Your task to perform on an android device: change the clock display to digital Image 0: 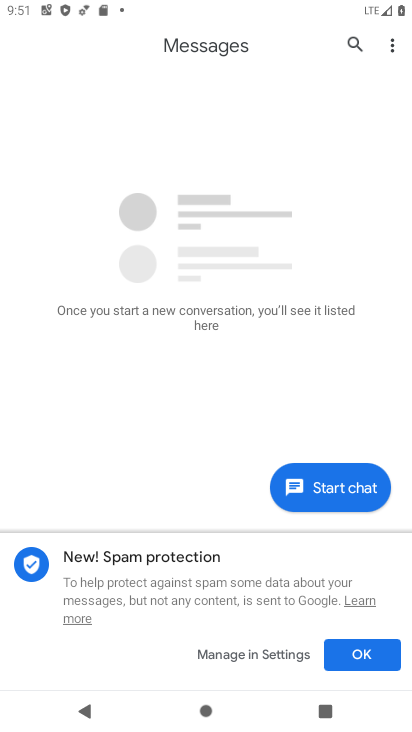
Step 0: press home button
Your task to perform on an android device: change the clock display to digital Image 1: 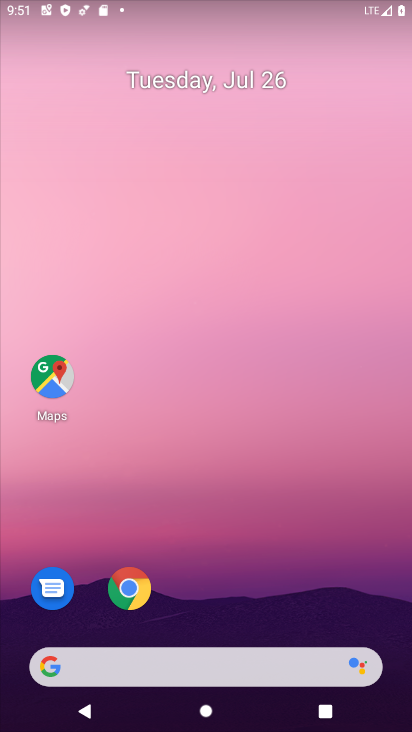
Step 1: drag from (166, 670) to (238, 82)
Your task to perform on an android device: change the clock display to digital Image 2: 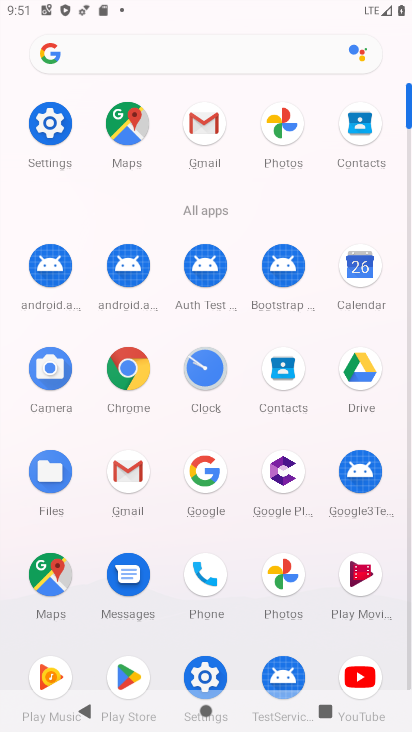
Step 2: click (205, 368)
Your task to perform on an android device: change the clock display to digital Image 3: 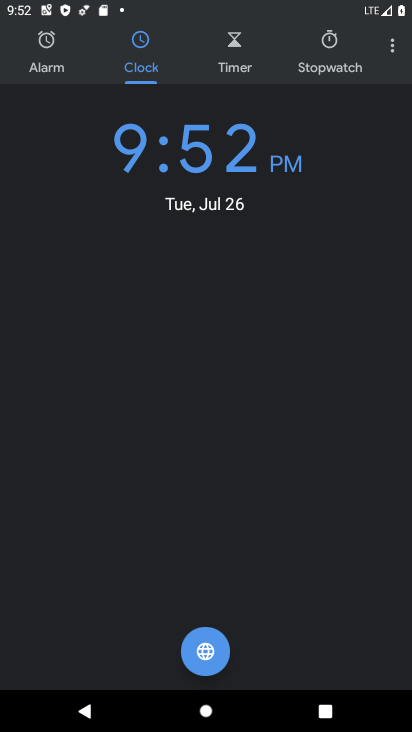
Step 3: click (392, 47)
Your task to perform on an android device: change the clock display to digital Image 4: 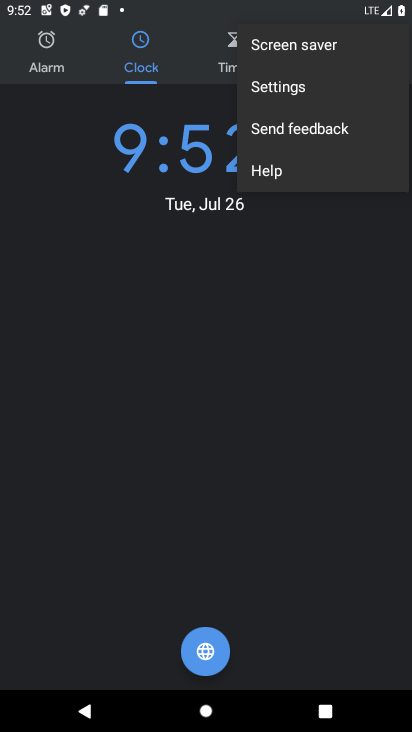
Step 4: click (290, 88)
Your task to perform on an android device: change the clock display to digital Image 5: 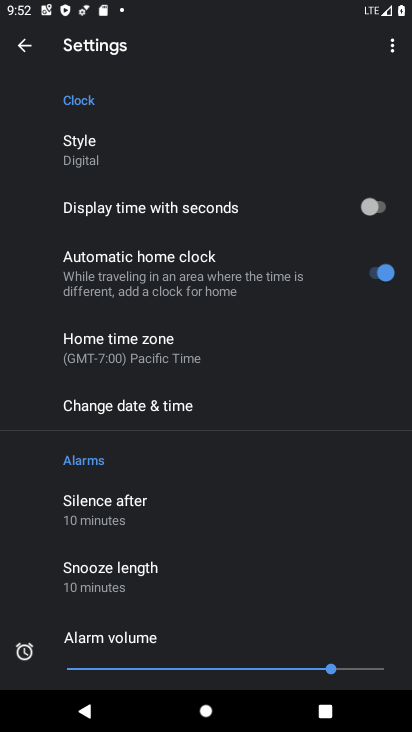
Step 5: click (87, 160)
Your task to perform on an android device: change the clock display to digital Image 6: 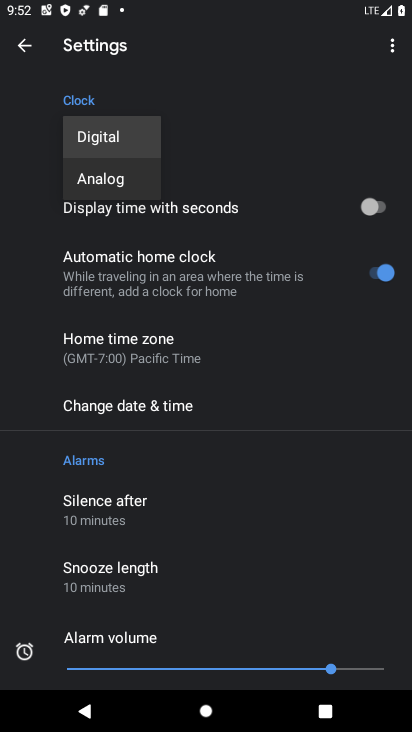
Step 6: click (105, 144)
Your task to perform on an android device: change the clock display to digital Image 7: 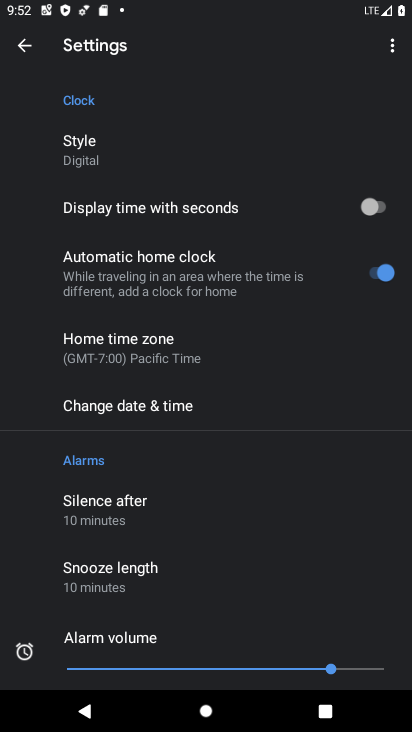
Step 7: task complete